Your task to perform on an android device: Go to battery settings Image 0: 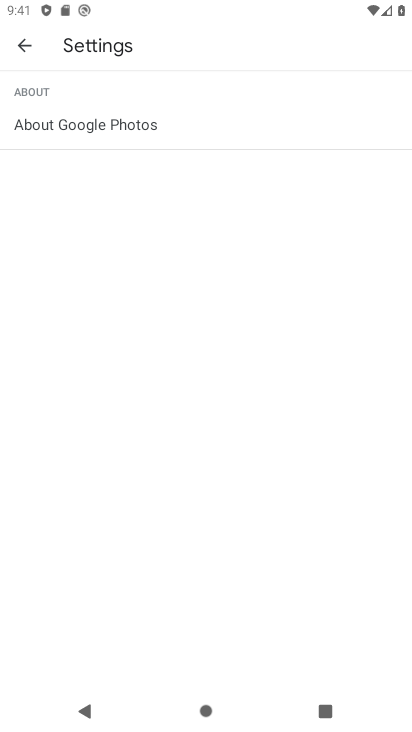
Step 0: press home button
Your task to perform on an android device: Go to battery settings Image 1: 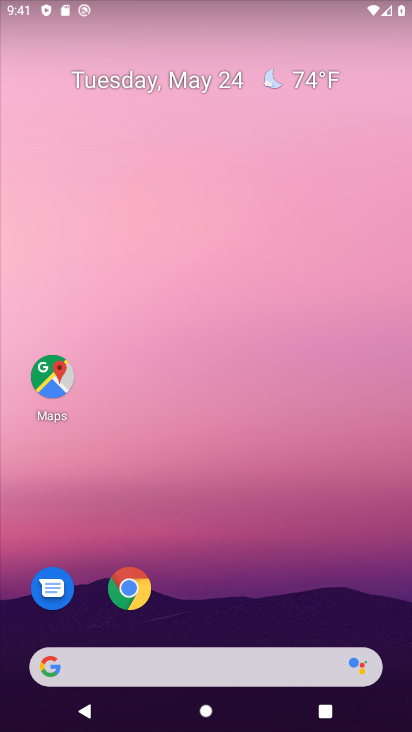
Step 1: drag from (361, 611) to (272, 26)
Your task to perform on an android device: Go to battery settings Image 2: 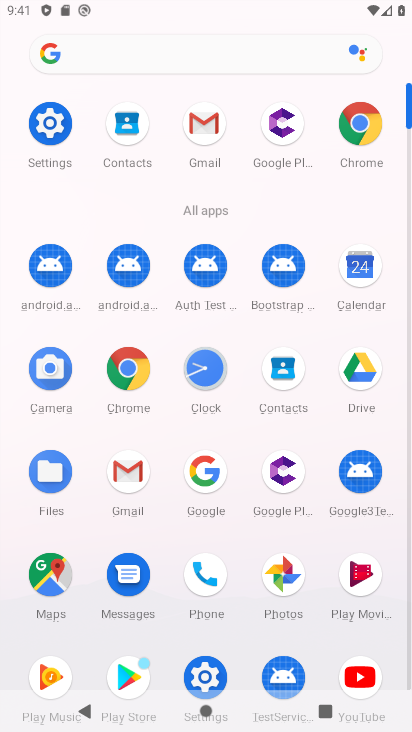
Step 2: click (54, 123)
Your task to perform on an android device: Go to battery settings Image 3: 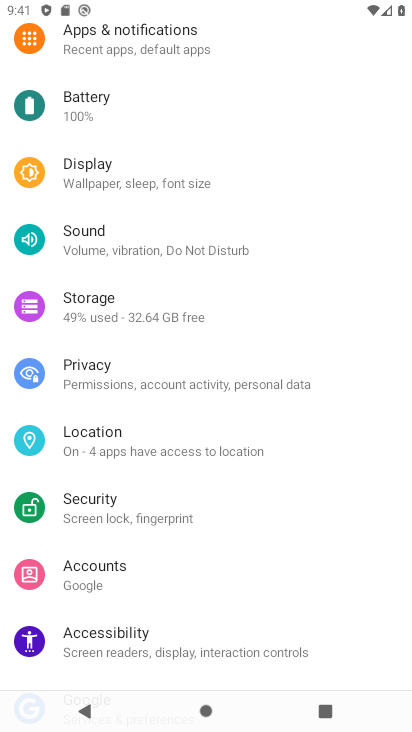
Step 3: click (55, 114)
Your task to perform on an android device: Go to battery settings Image 4: 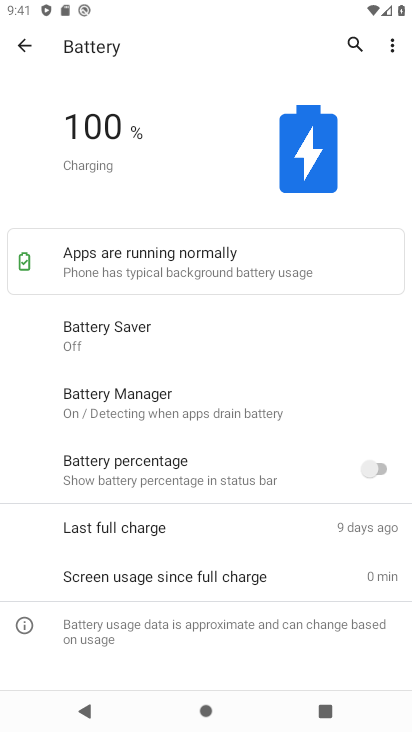
Step 4: task complete